Your task to perform on an android device: Open privacy settings Image 0: 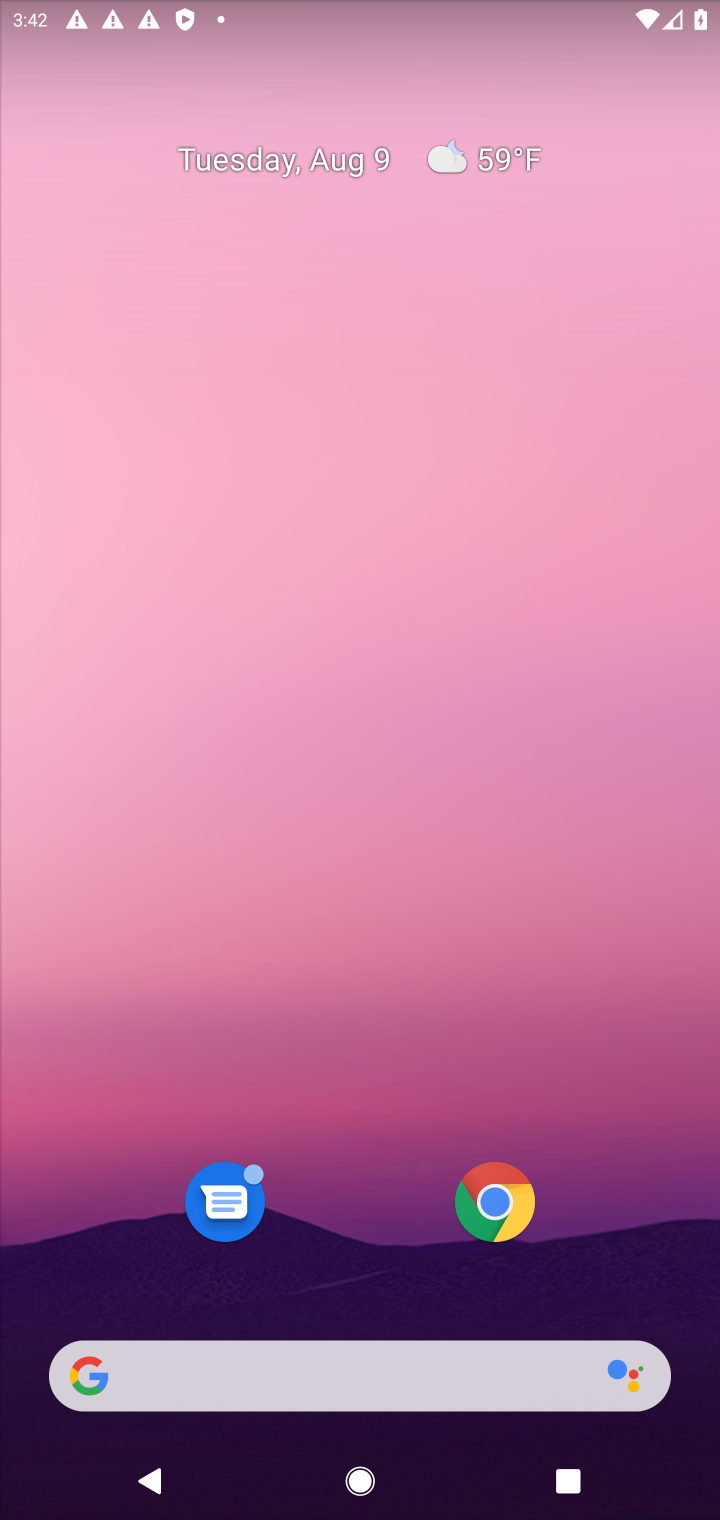
Step 0: press home button
Your task to perform on an android device: Open privacy settings Image 1: 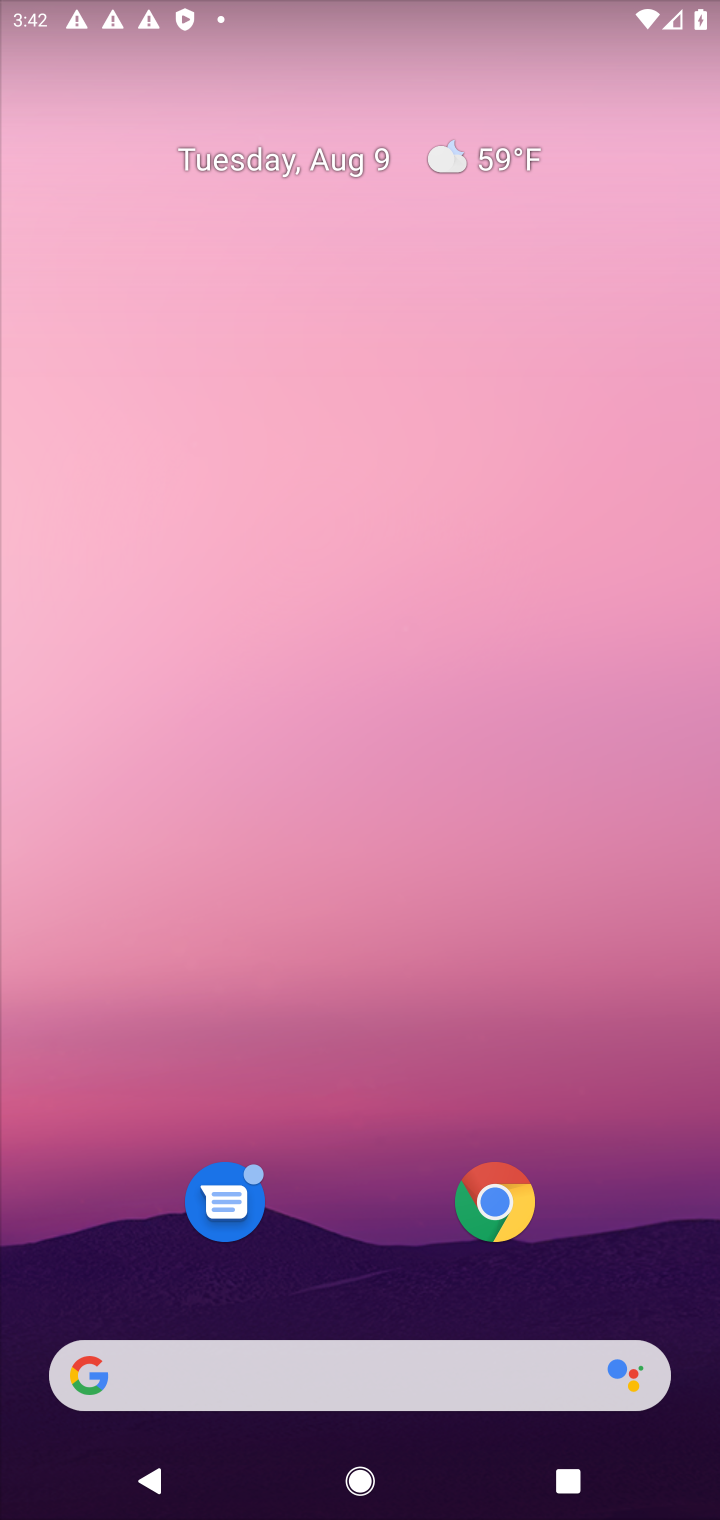
Step 1: drag from (372, 1292) to (308, 175)
Your task to perform on an android device: Open privacy settings Image 2: 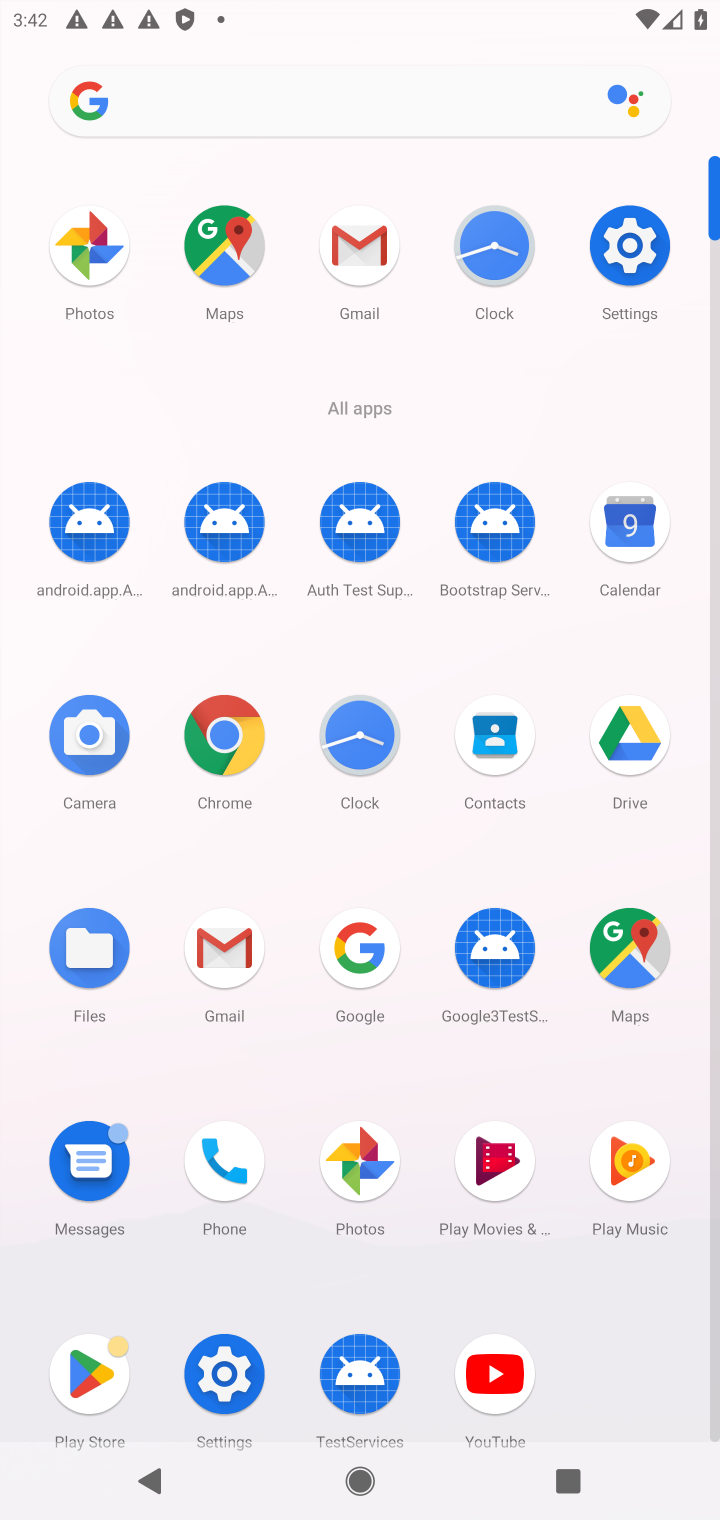
Step 2: click (216, 1364)
Your task to perform on an android device: Open privacy settings Image 3: 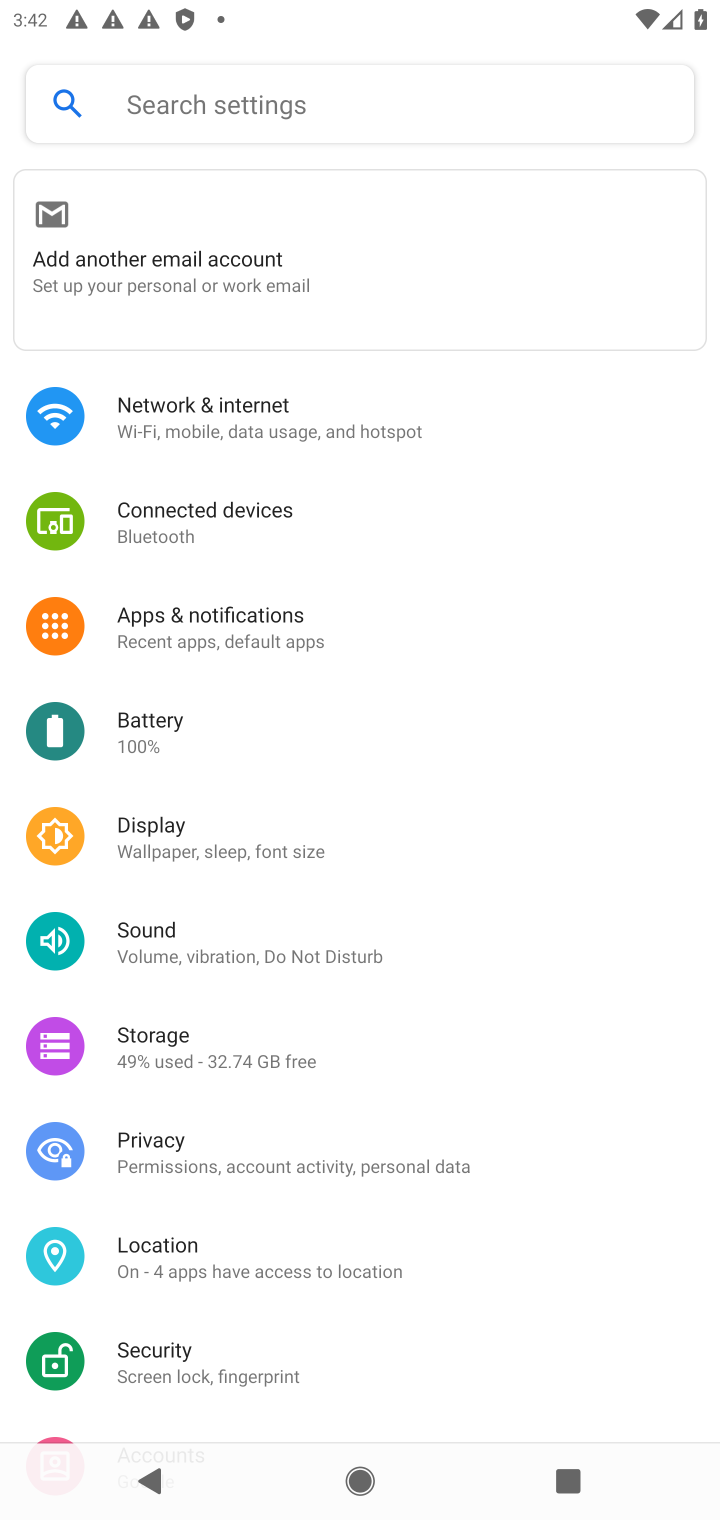
Step 3: click (203, 1145)
Your task to perform on an android device: Open privacy settings Image 4: 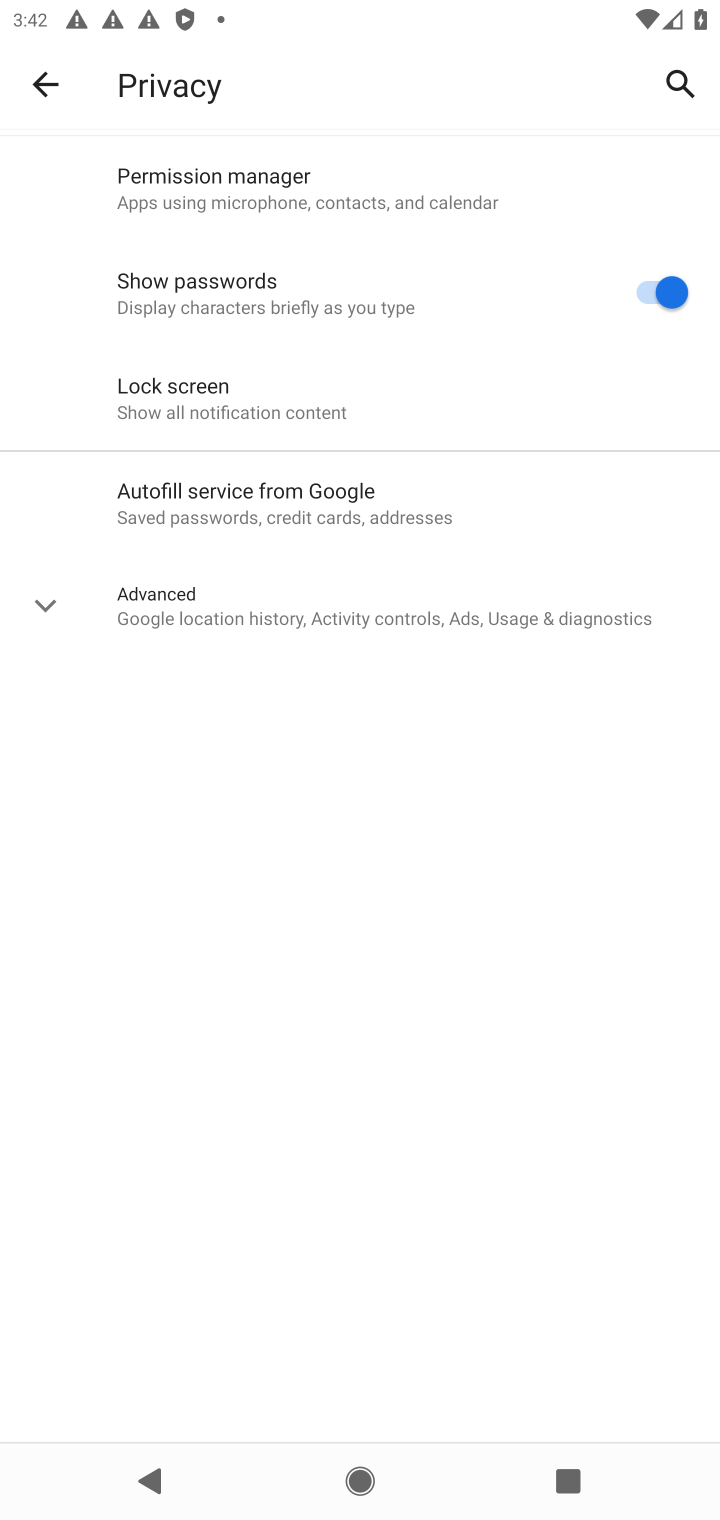
Step 4: click (31, 591)
Your task to perform on an android device: Open privacy settings Image 5: 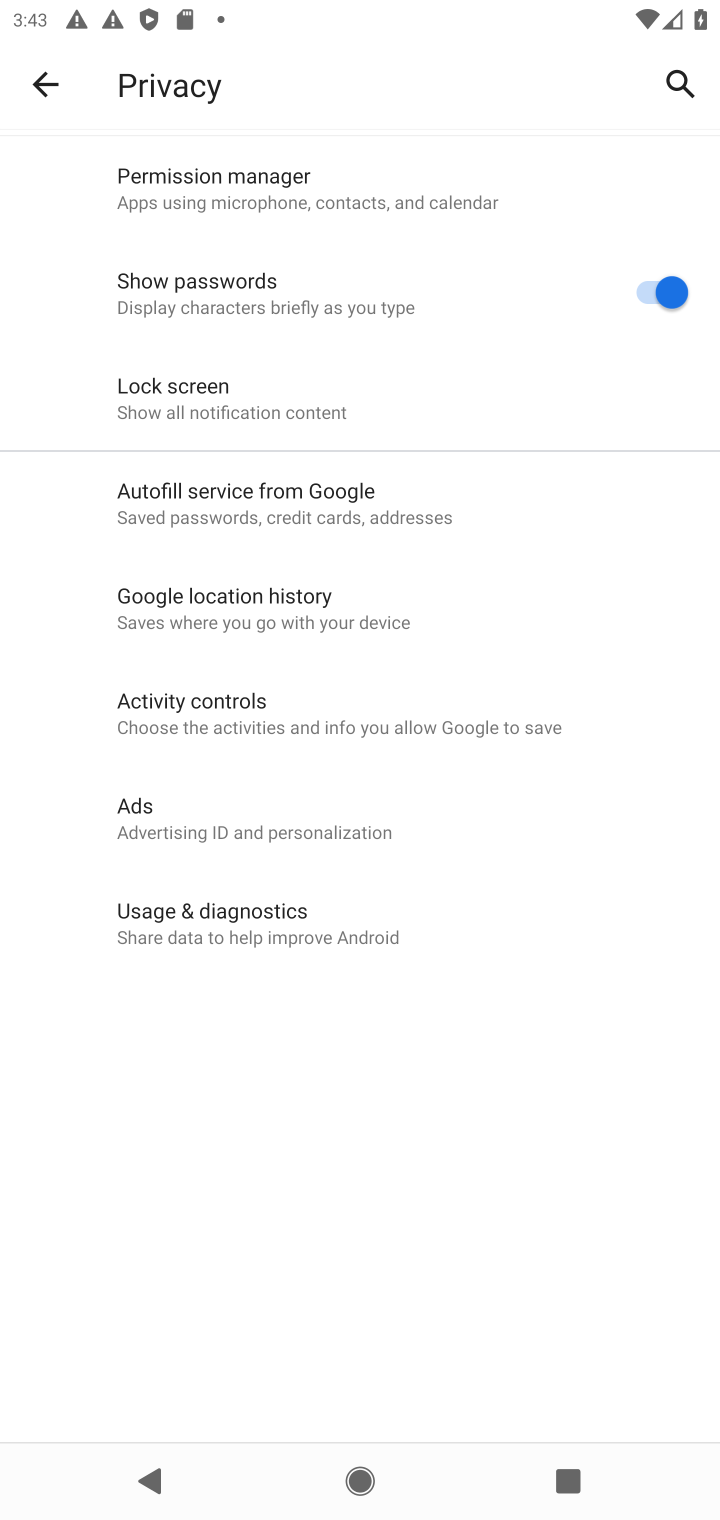
Step 5: task complete